Your task to perform on an android device: delete the emails in spam in the gmail app Image 0: 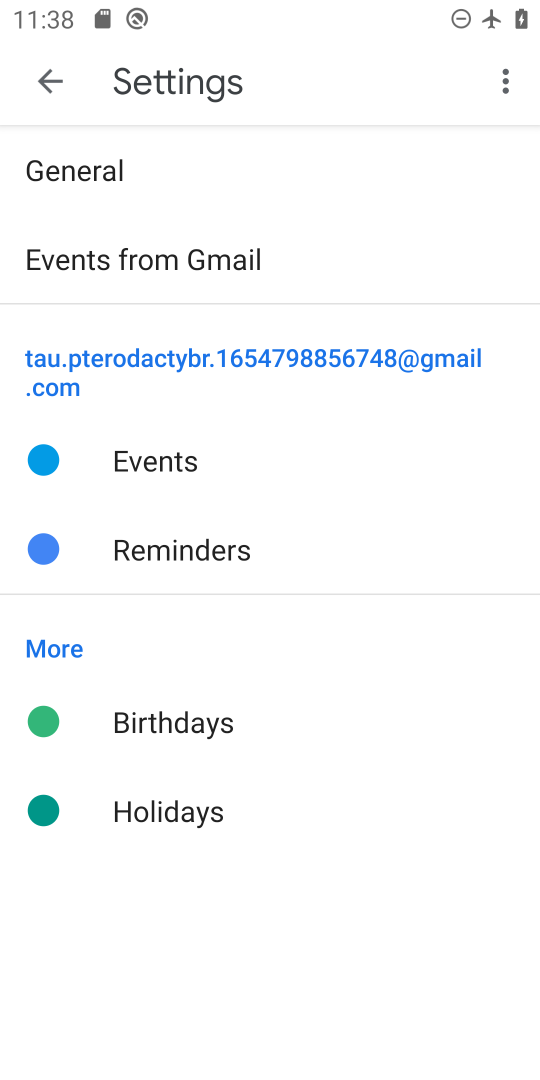
Step 0: press home button
Your task to perform on an android device: delete the emails in spam in the gmail app Image 1: 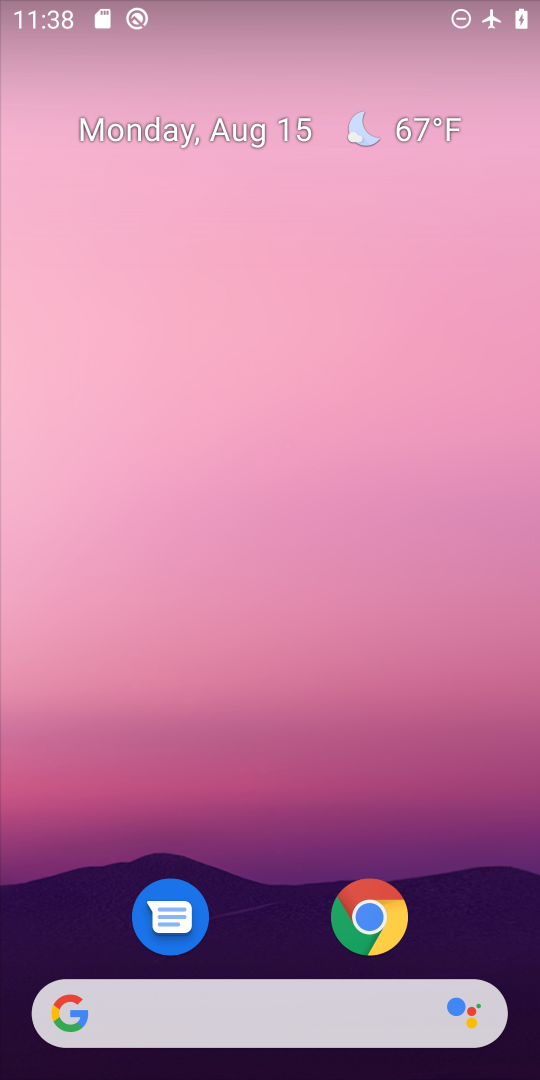
Step 1: drag from (293, 836) to (281, 3)
Your task to perform on an android device: delete the emails in spam in the gmail app Image 2: 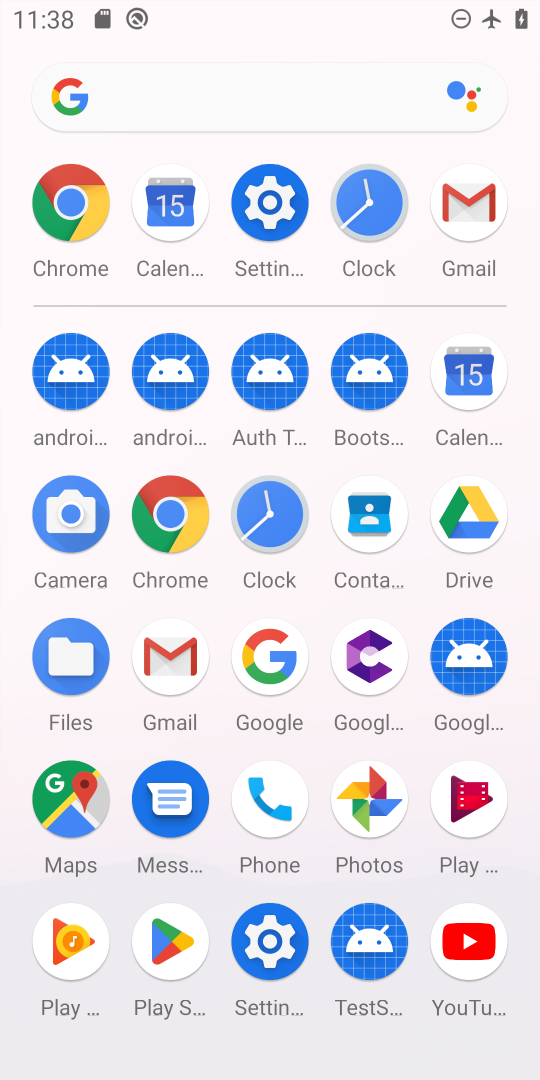
Step 2: click (261, 187)
Your task to perform on an android device: delete the emails in spam in the gmail app Image 3: 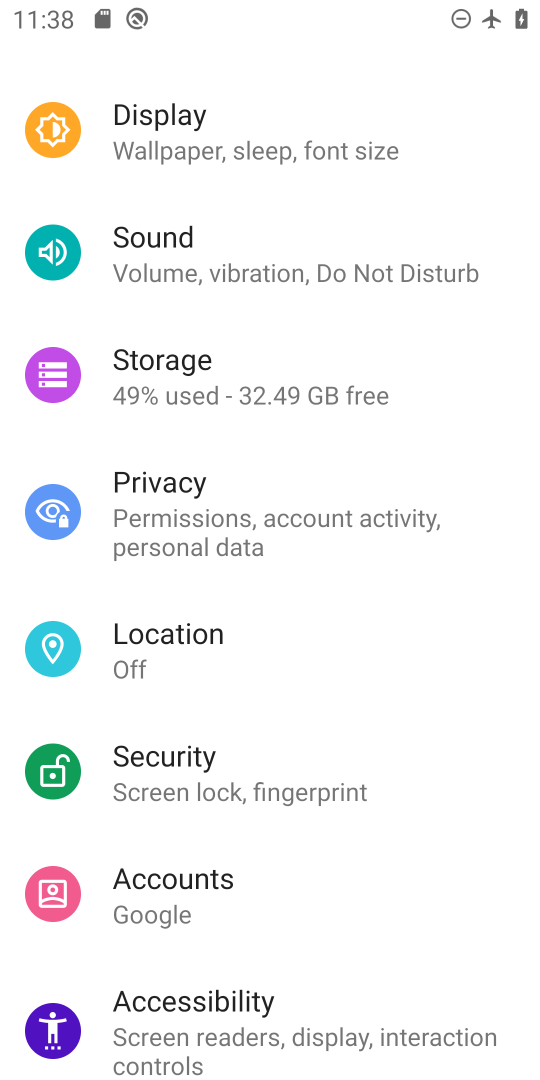
Step 3: press back button
Your task to perform on an android device: delete the emails in spam in the gmail app Image 4: 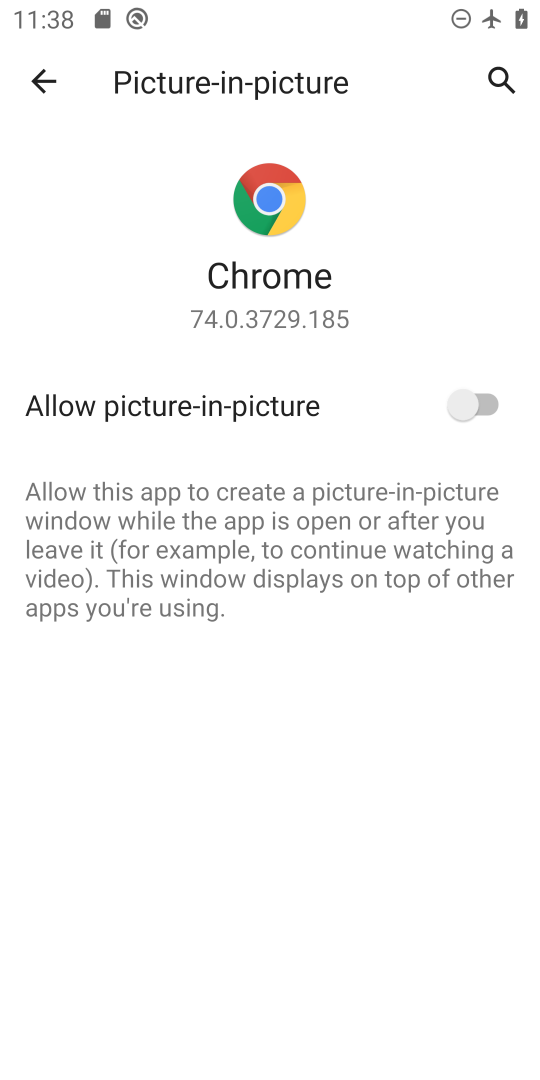
Step 4: press back button
Your task to perform on an android device: delete the emails in spam in the gmail app Image 5: 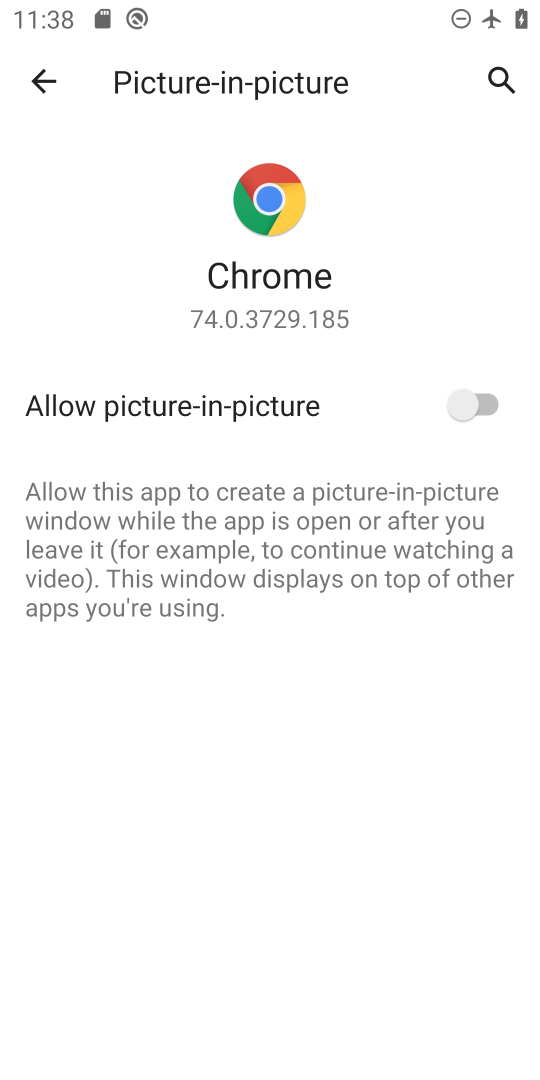
Step 5: press back button
Your task to perform on an android device: delete the emails in spam in the gmail app Image 6: 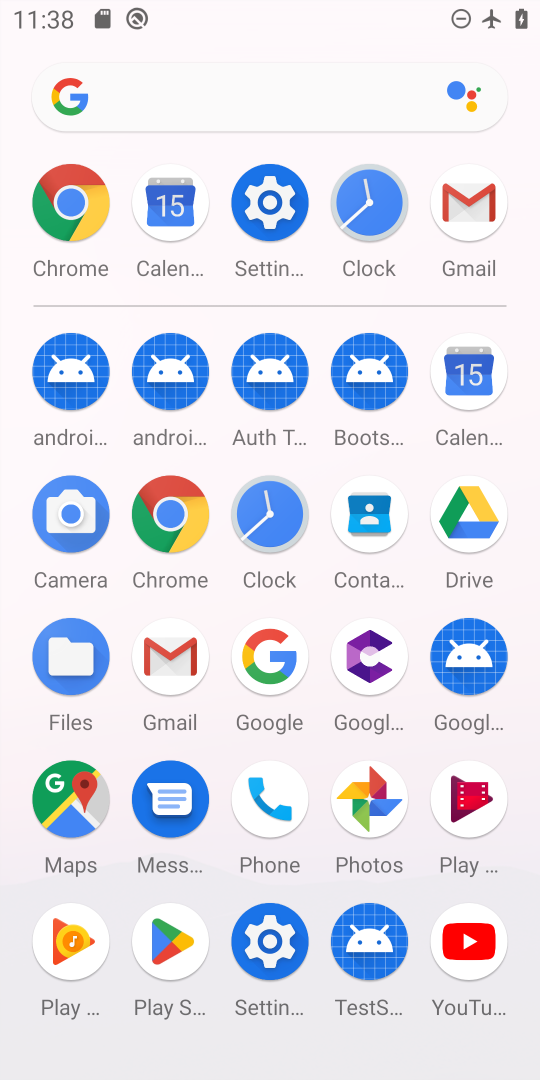
Step 6: click (481, 202)
Your task to perform on an android device: delete the emails in spam in the gmail app Image 7: 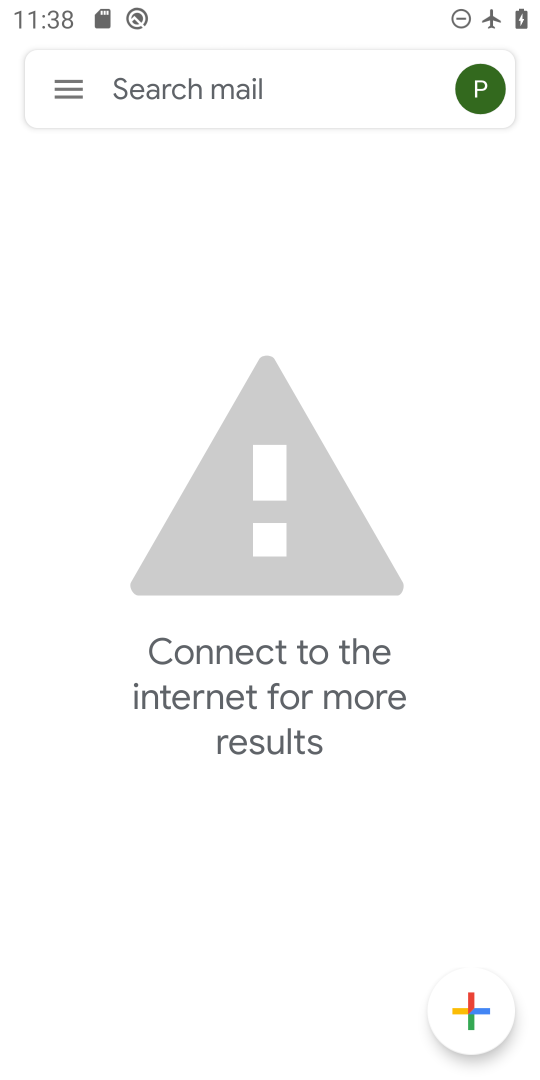
Step 7: click (64, 84)
Your task to perform on an android device: delete the emails in spam in the gmail app Image 8: 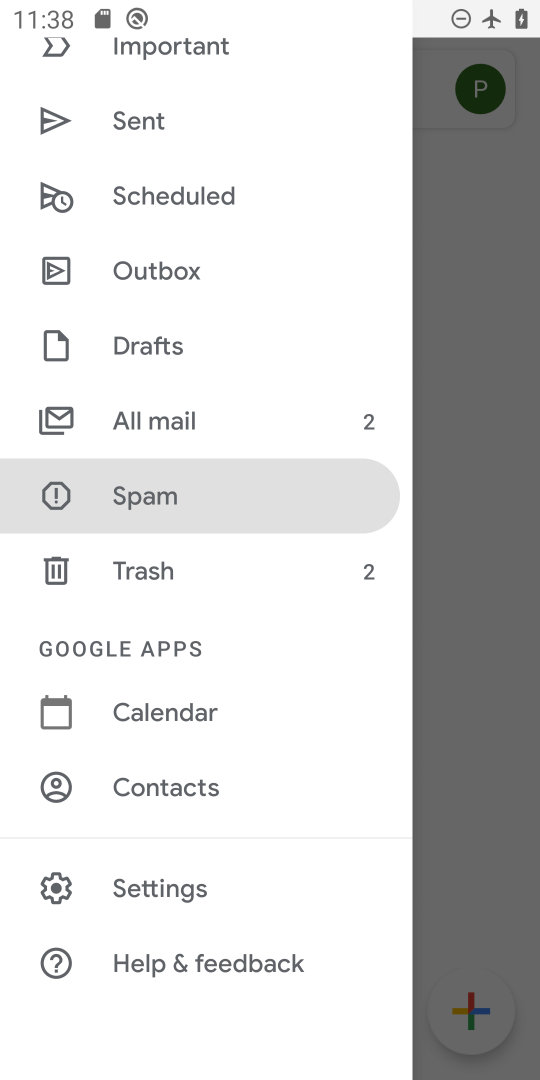
Step 8: click (141, 490)
Your task to perform on an android device: delete the emails in spam in the gmail app Image 9: 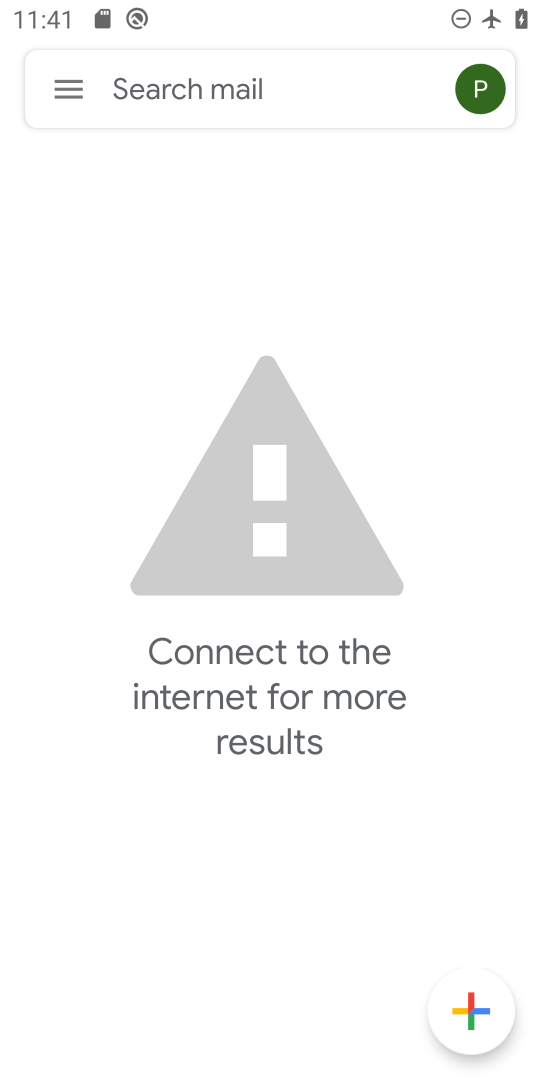
Step 9: task complete